Your task to perform on an android device: open device folders in google photos Image 0: 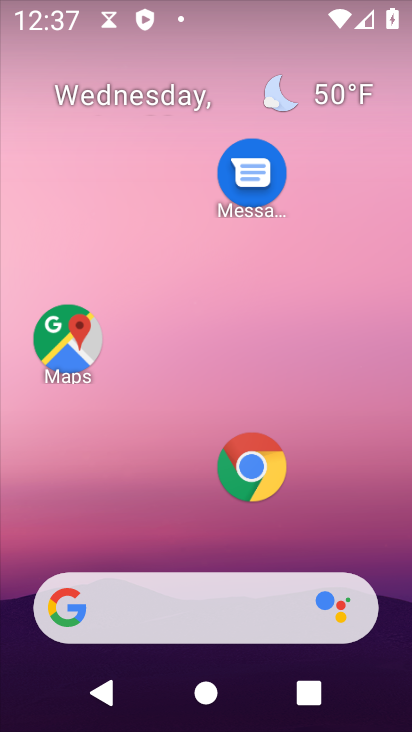
Step 0: drag from (176, 333) to (211, 17)
Your task to perform on an android device: open device folders in google photos Image 1: 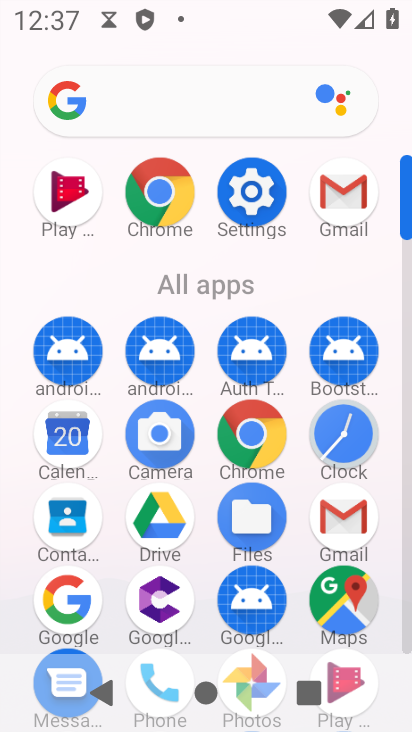
Step 1: drag from (294, 565) to (311, 324)
Your task to perform on an android device: open device folders in google photos Image 2: 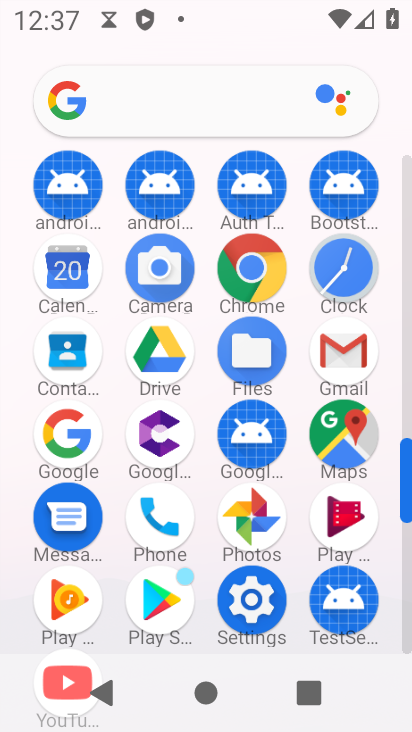
Step 2: click (256, 525)
Your task to perform on an android device: open device folders in google photos Image 3: 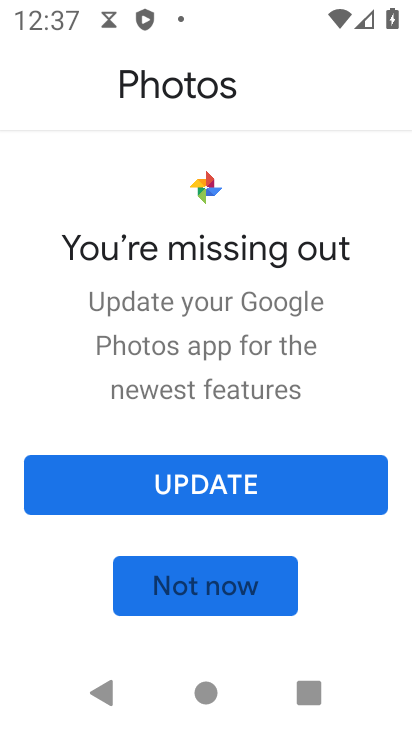
Step 3: click (293, 468)
Your task to perform on an android device: open device folders in google photos Image 4: 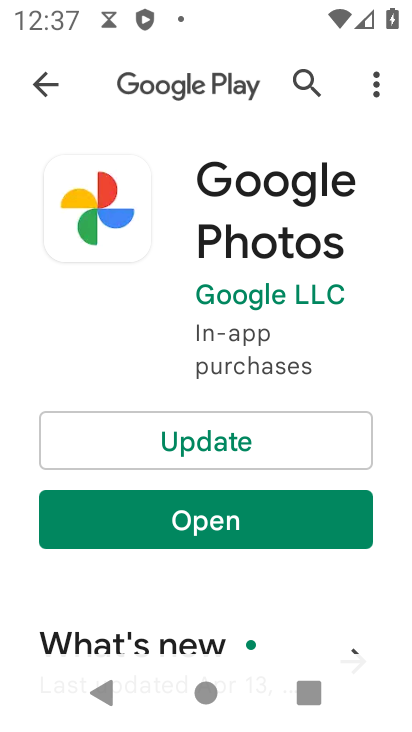
Step 4: click (228, 424)
Your task to perform on an android device: open device folders in google photos Image 5: 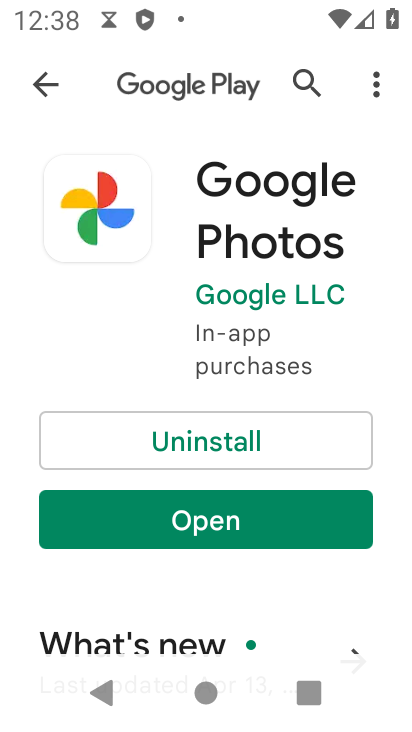
Step 5: click (234, 513)
Your task to perform on an android device: open device folders in google photos Image 6: 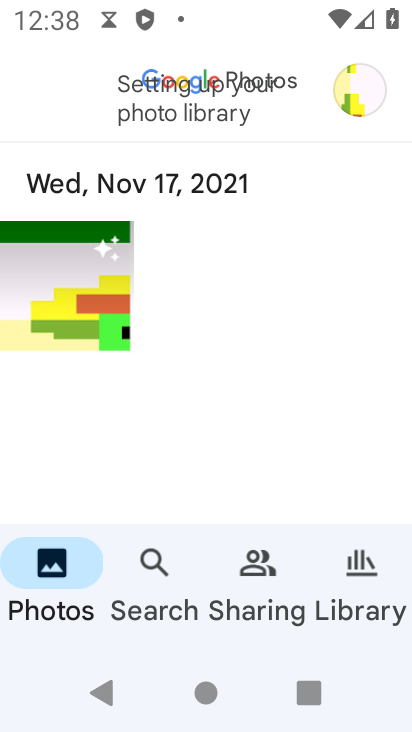
Step 6: task complete